Your task to perform on an android device: toggle pop-ups in chrome Image 0: 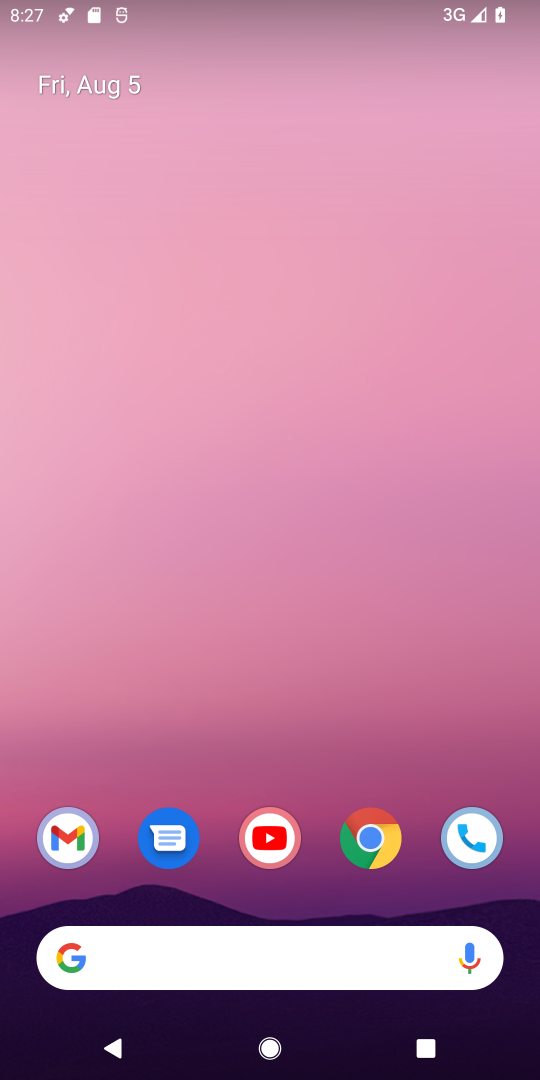
Step 0: click (372, 840)
Your task to perform on an android device: toggle pop-ups in chrome Image 1: 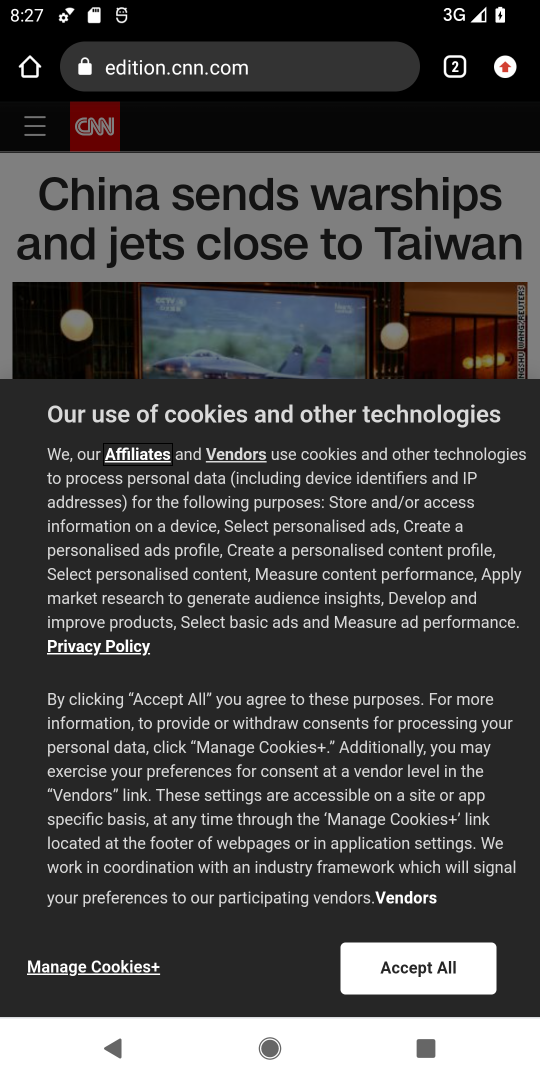
Step 1: click (502, 66)
Your task to perform on an android device: toggle pop-ups in chrome Image 2: 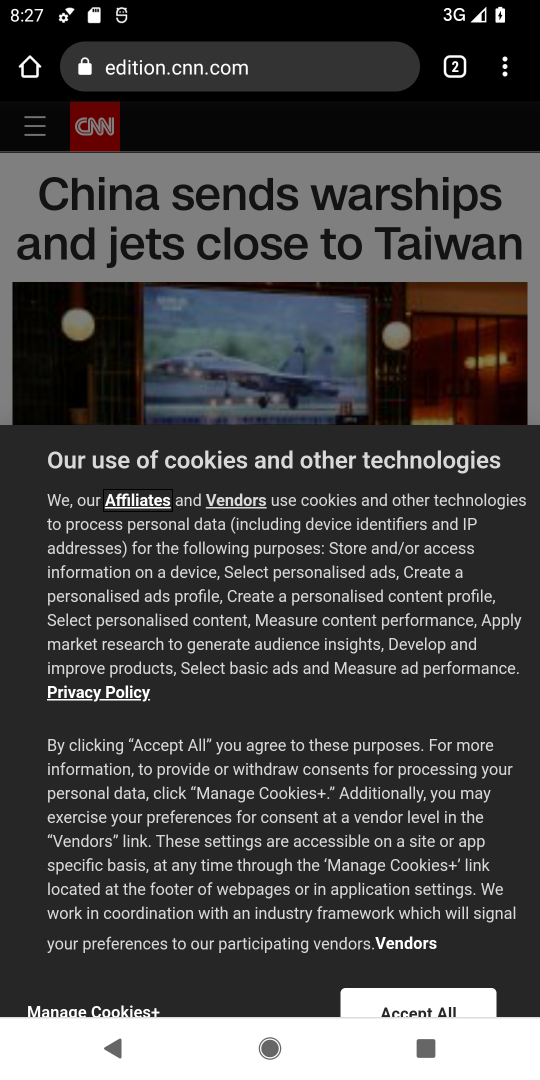
Step 2: click (502, 66)
Your task to perform on an android device: toggle pop-ups in chrome Image 3: 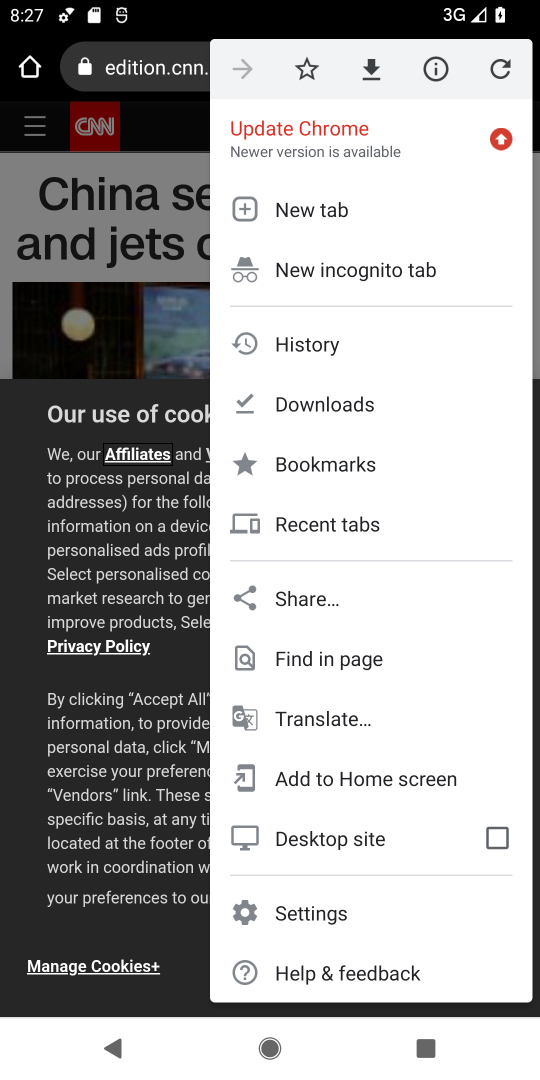
Step 3: click (294, 913)
Your task to perform on an android device: toggle pop-ups in chrome Image 4: 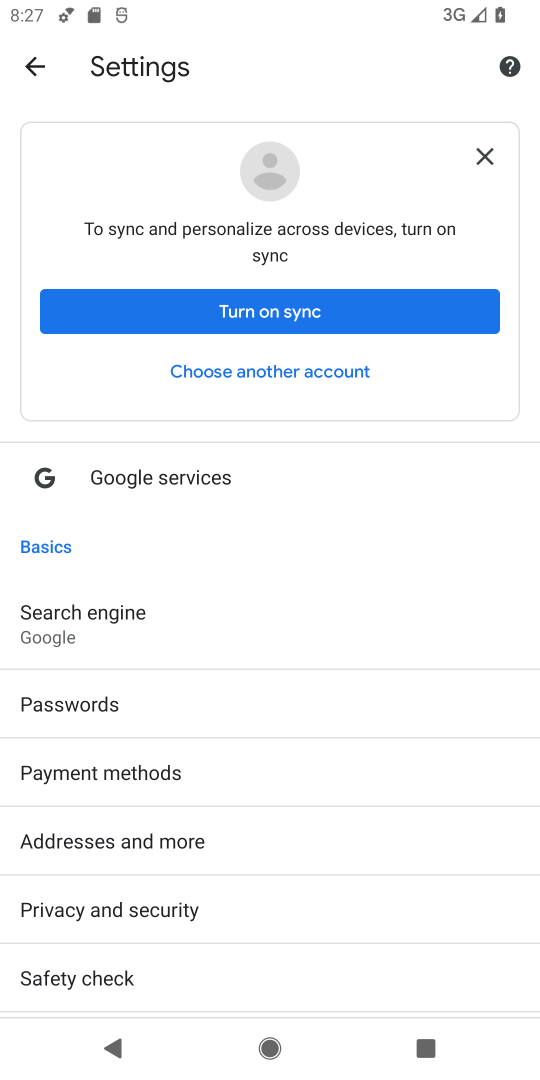
Step 4: drag from (384, 652) to (284, 290)
Your task to perform on an android device: toggle pop-ups in chrome Image 5: 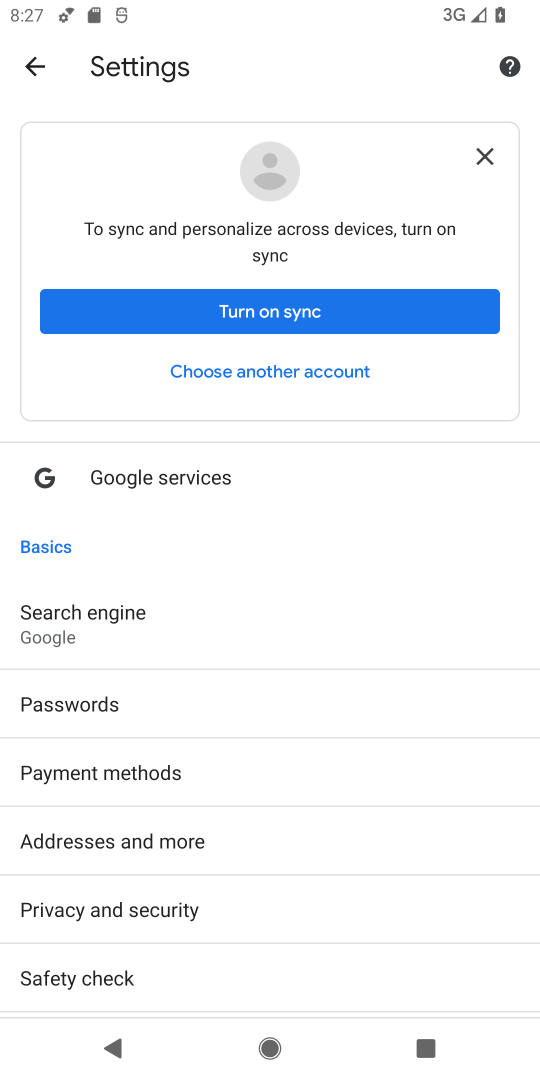
Step 5: click (485, 159)
Your task to perform on an android device: toggle pop-ups in chrome Image 6: 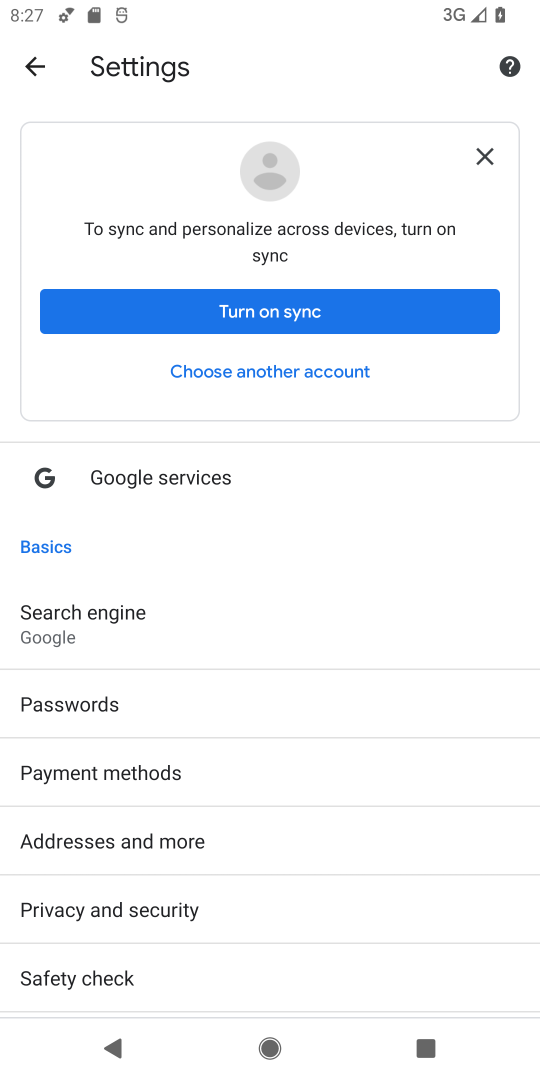
Step 6: drag from (426, 613) to (291, 153)
Your task to perform on an android device: toggle pop-ups in chrome Image 7: 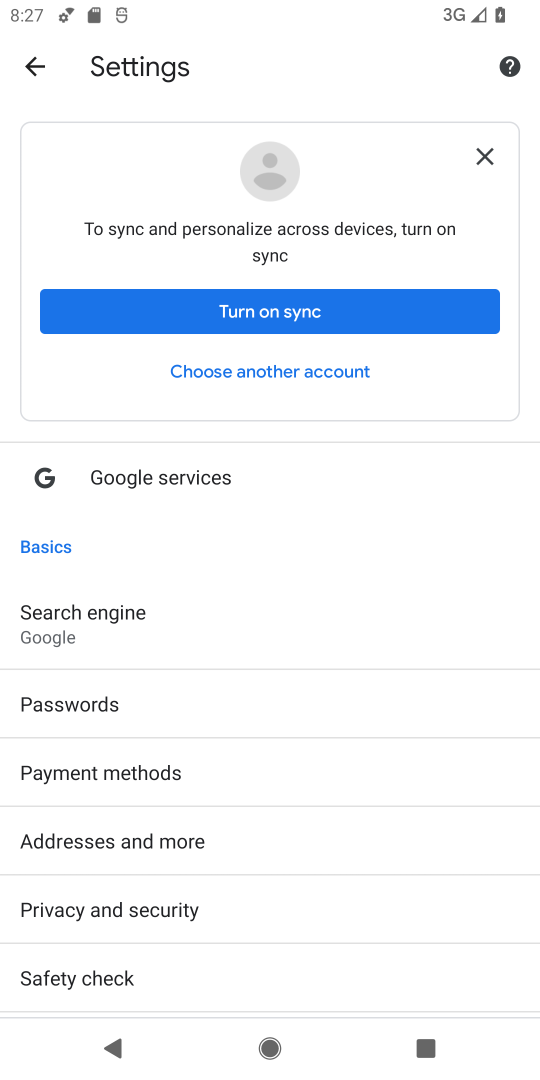
Step 7: drag from (392, 902) to (234, 292)
Your task to perform on an android device: toggle pop-ups in chrome Image 8: 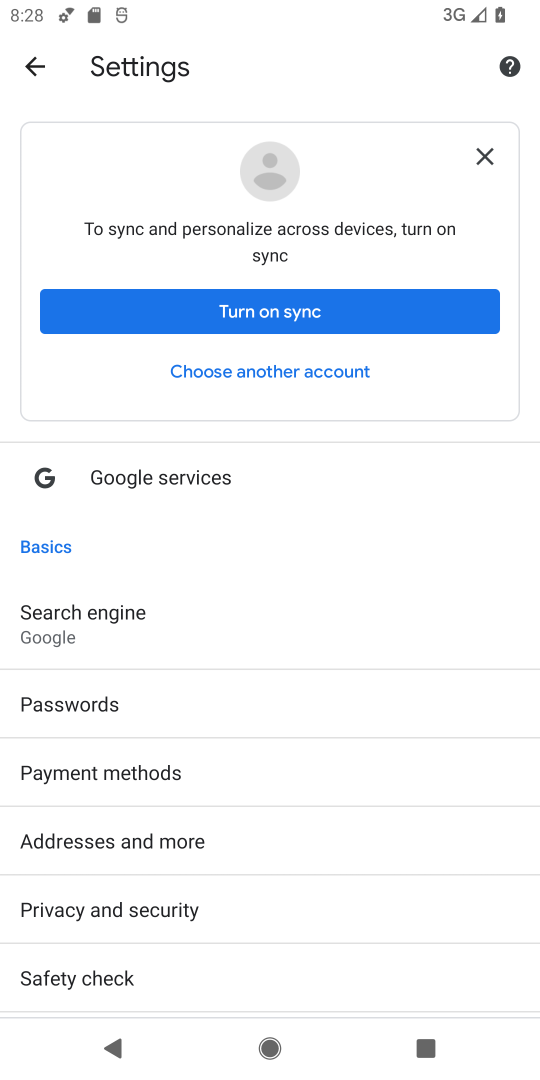
Step 8: click (486, 153)
Your task to perform on an android device: toggle pop-ups in chrome Image 9: 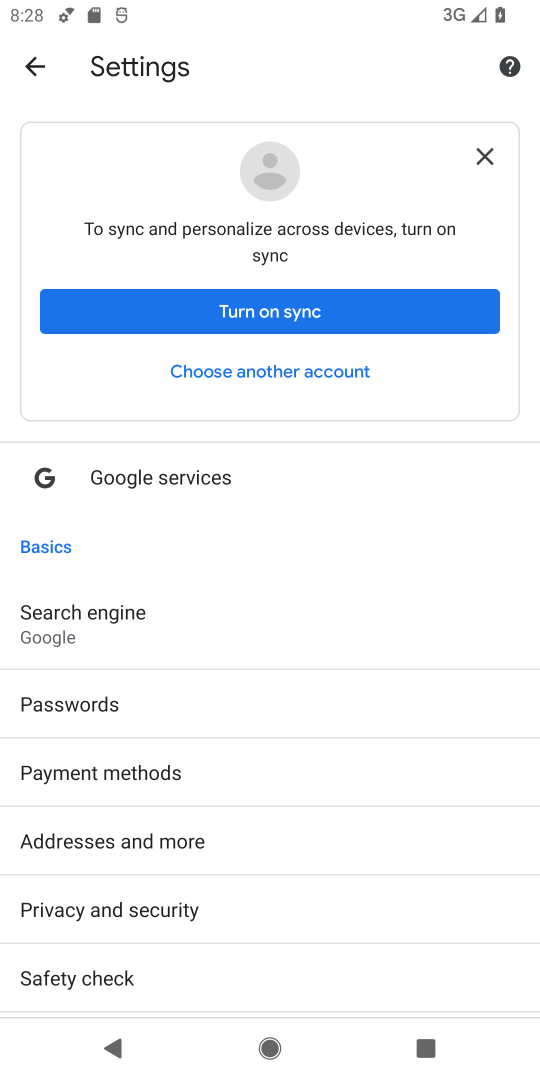
Step 9: click (486, 153)
Your task to perform on an android device: toggle pop-ups in chrome Image 10: 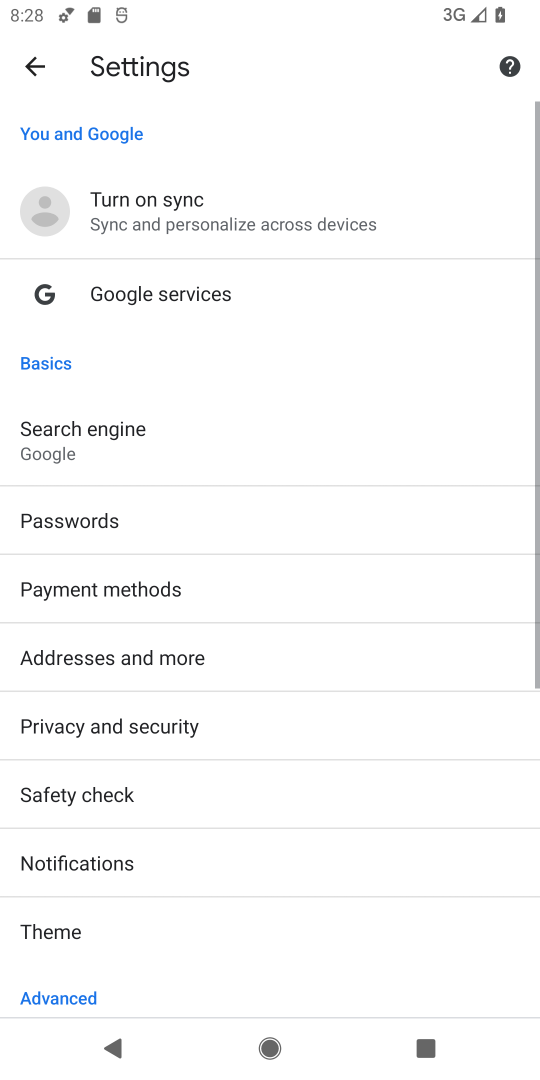
Step 10: click (486, 153)
Your task to perform on an android device: toggle pop-ups in chrome Image 11: 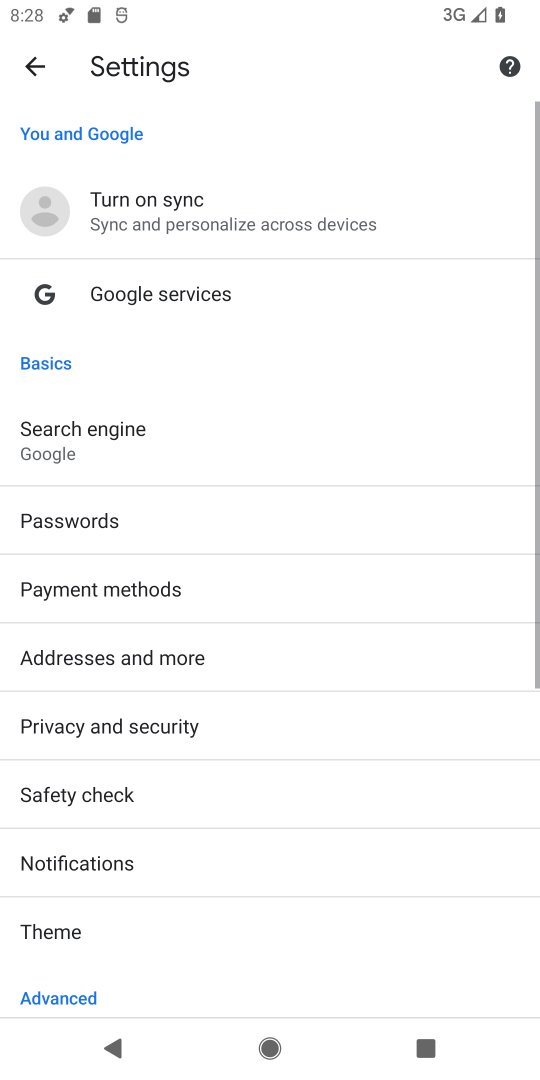
Step 11: click (486, 153)
Your task to perform on an android device: toggle pop-ups in chrome Image 12: 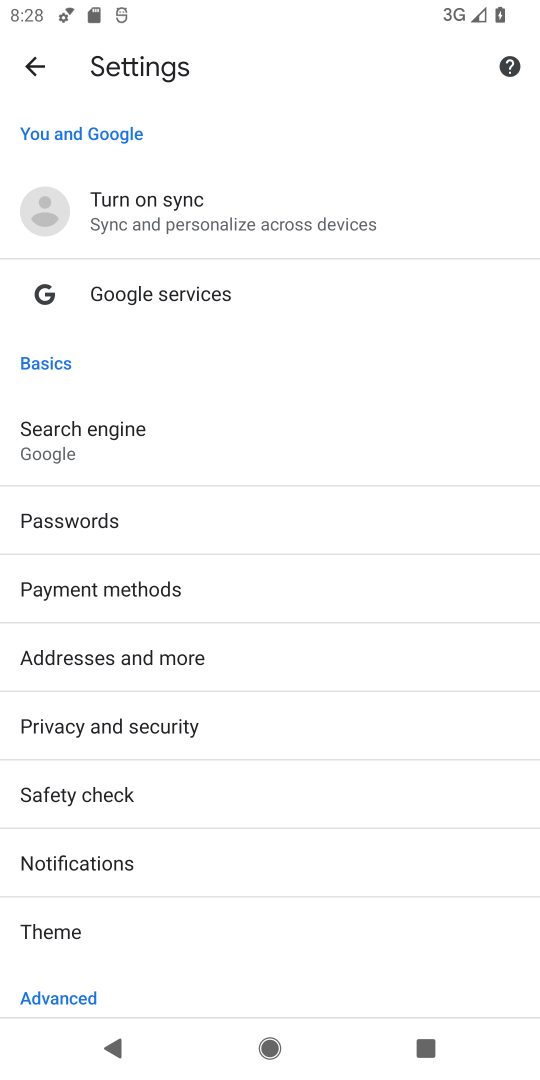
Step 12: drag from (336, 537) to (291, 55)
Your task to perform on an android device: toggle pop-ups in chrome Image 13: 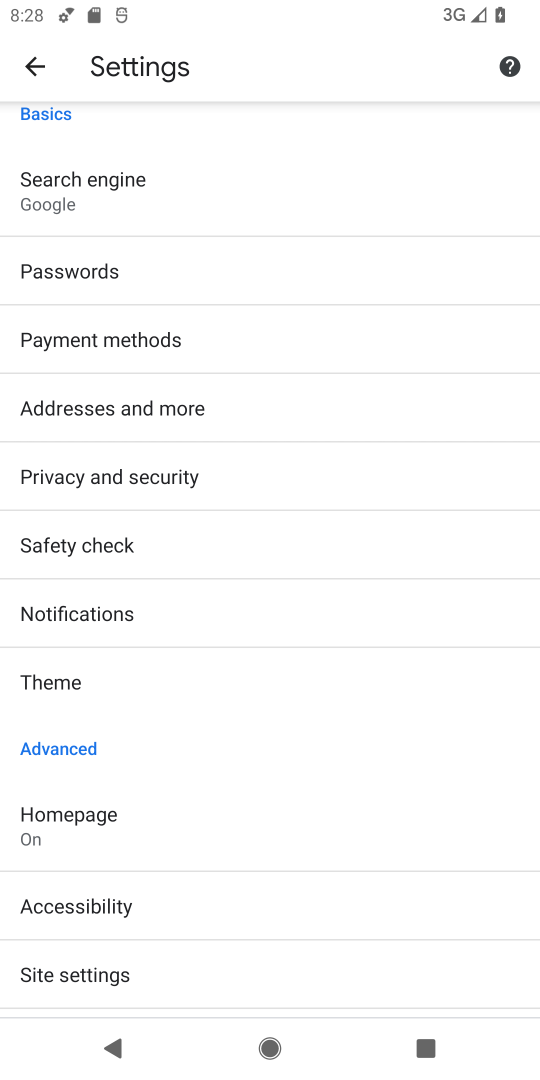
Step 13: drag from (377, 843) to (342, 731)
Your task to perform on an android device: toggle pop-ups in chrome Image 14: 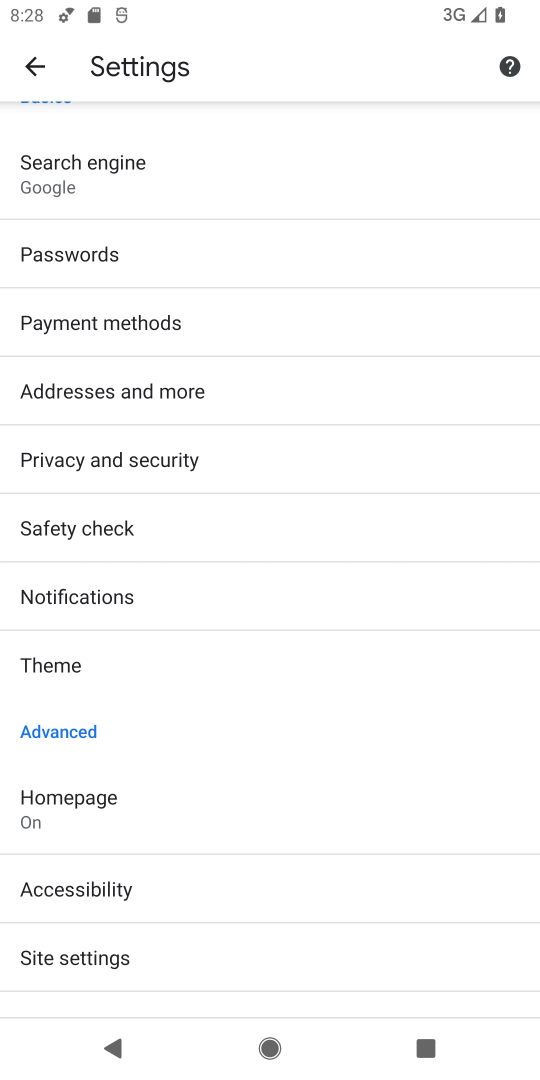
Step 14: click (88, 956)
Your task to perform on an android device: toggle pop-ups in chrome Image 15: 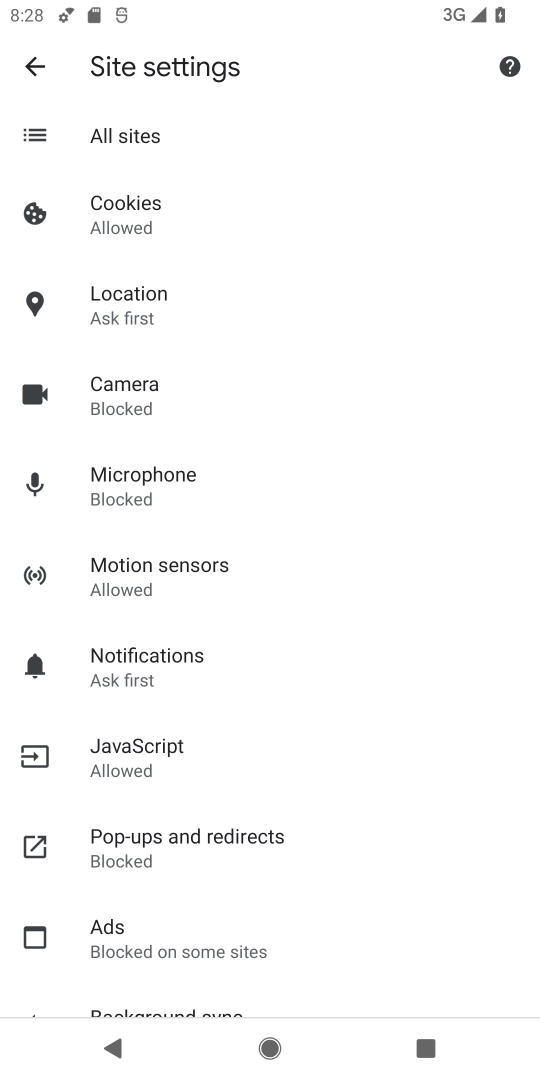
Step 15: click (239, 845)
Your task to perform on an android device: toggle pop-ups in chrome Image 16: 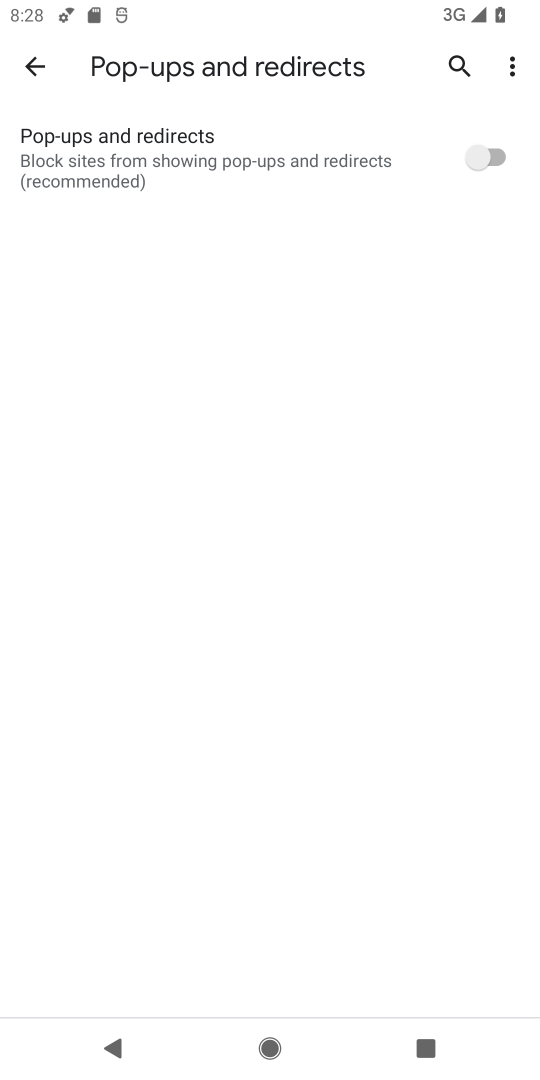
Step 16: click (475, 161)
Your task to perform on an android device: toggle pop-ups in chrome Image 17: 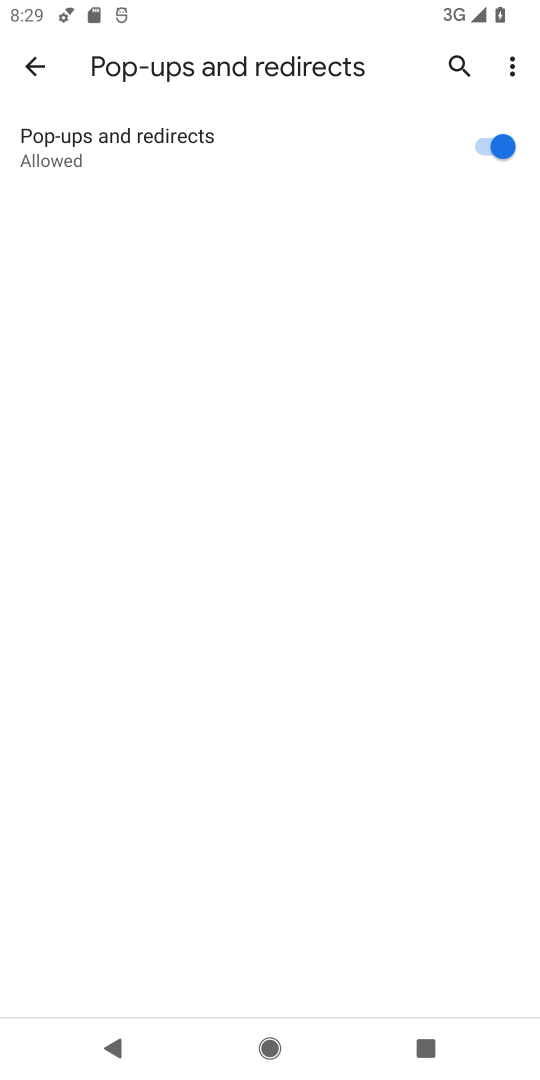
Step 17: task complete